Your task to perform on an android device: turn on sleep mode Image 0: 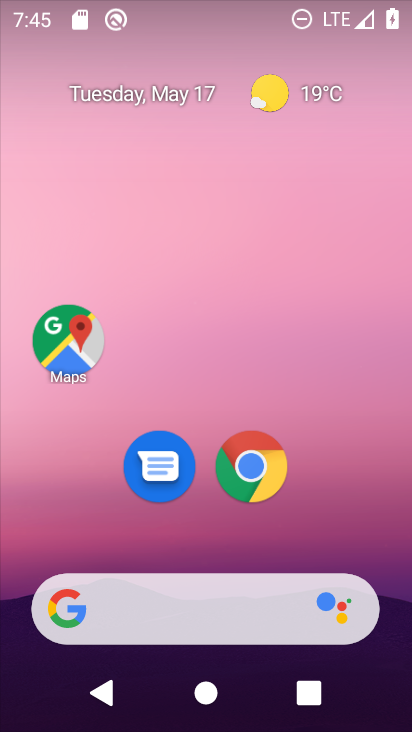
Step 0: drag from (188, 607) to (326, 124)
Your task to perform on an android device: turn on sleep mode Image 1: 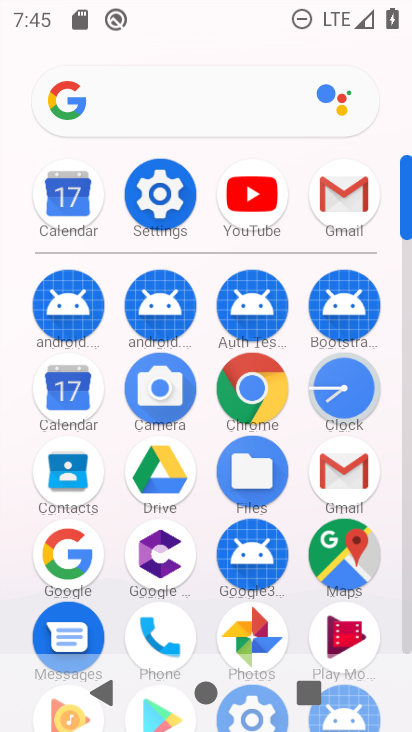
Step 1: click (171, 199)
Your task to perform on an android device: turn on sleep mode Image 2: 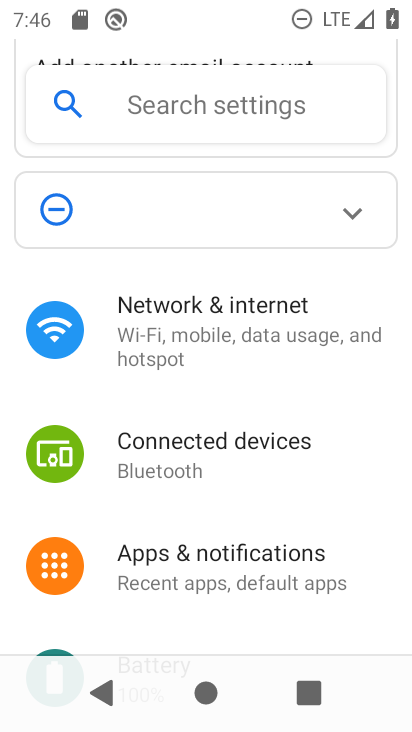
Step 2: drag from (236, 523) to (300, 293)
Your task to perform on an android device: turn on sleep mode Image 3: 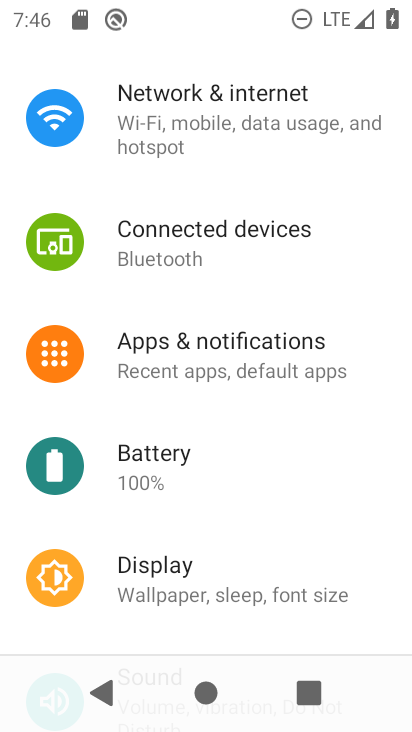
Step 3: click (241, 596)
Your task to perform on an android device: turn on sleep mode Image 4: 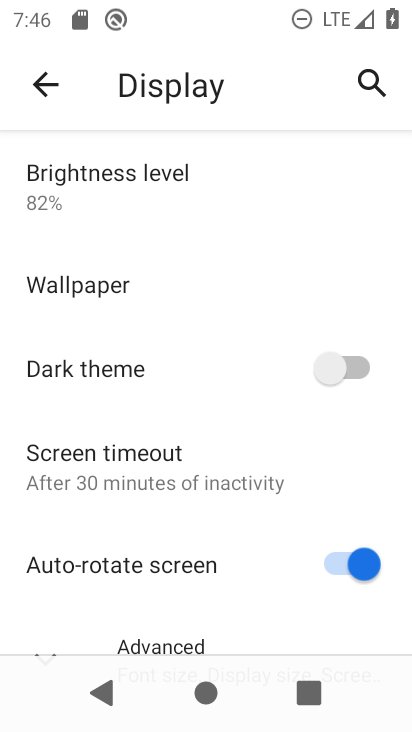
Step 4: task complete